Your task to perform on an android device: Go to calendar. Show me events next week Image 0: 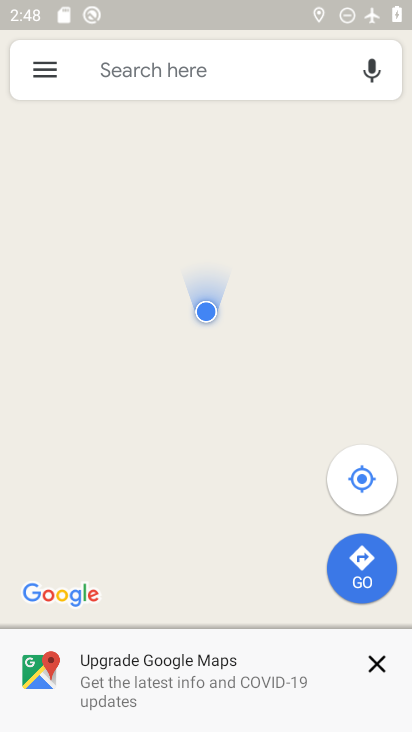
Step 0: press home button
Your task to perform on an android device: Go to calendar. Show me events next week Image 1: 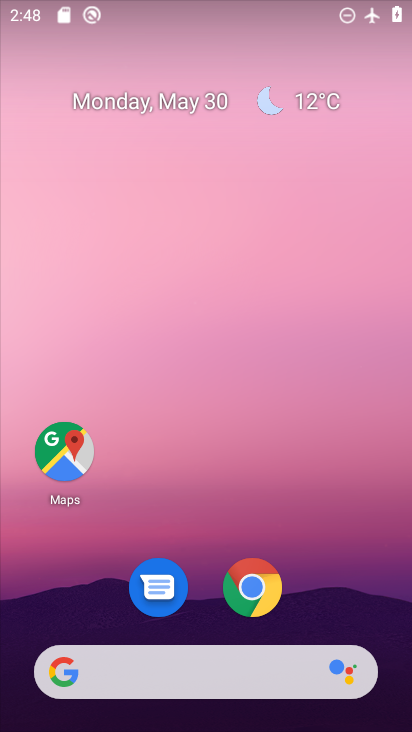
Step 1: drag from (204, 587) to (242, 86)
Your task to perform on an android device: Go to calendar. Show me events next week Image 2: 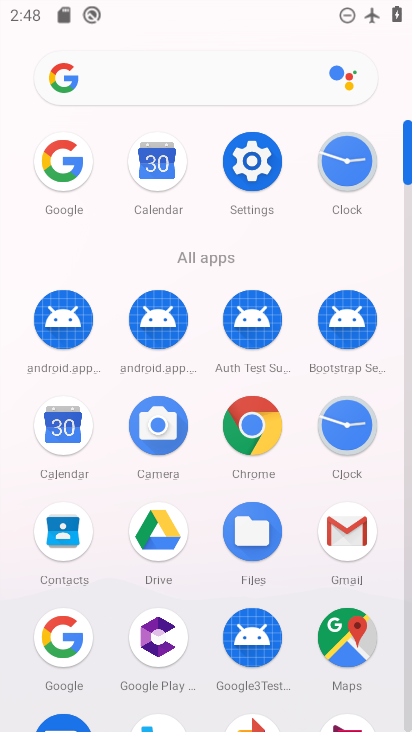
Step 2: click (66, 426)
Your task to perform on an android device: Go to calendar. Show me events next week Image 3: 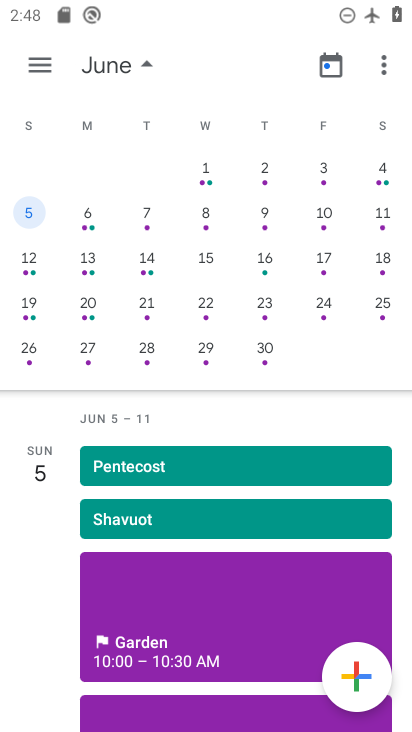
Step 3: click (209, 175)
Your task to perform on an android device: Go to calendar. Show me events next week Image 4: 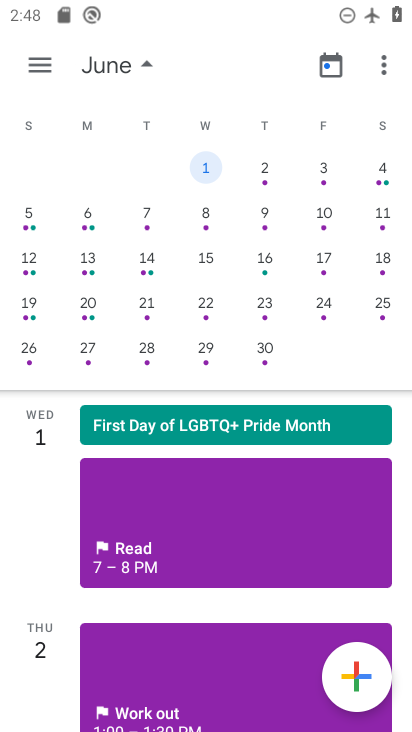
Step 4: click (259, 173)
Your task to perform on an android device: Go to calendar. Show me events next week Image 5: 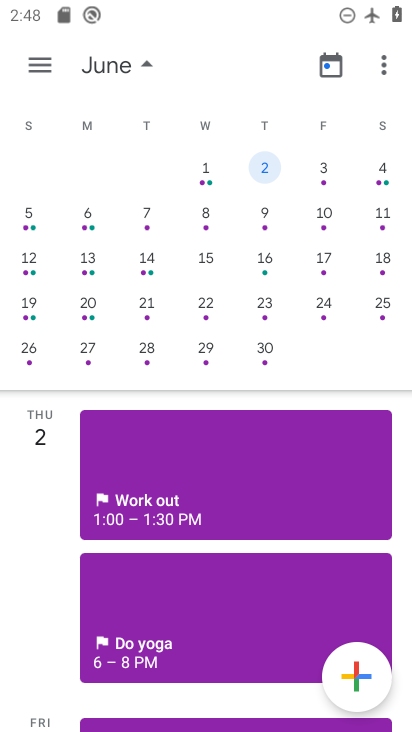
Step 5: click (329, 178)
Your task to perform on an android device: Go to calendar. Show me events next week Image 6: 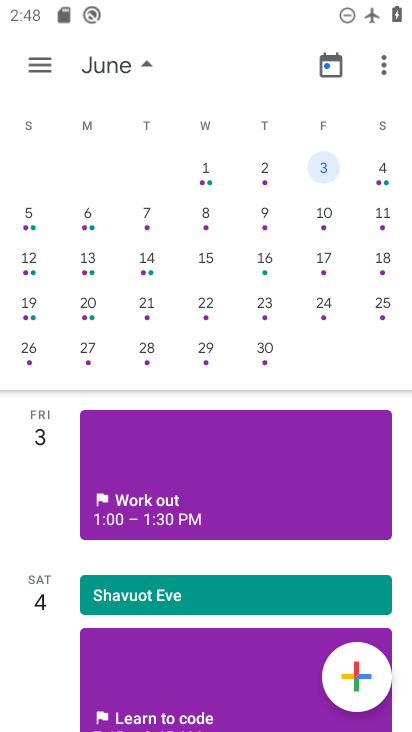
Step 6: click (377, 178)
Your task to perform on an android device: Go to calendar. Show me events next week Image 7: 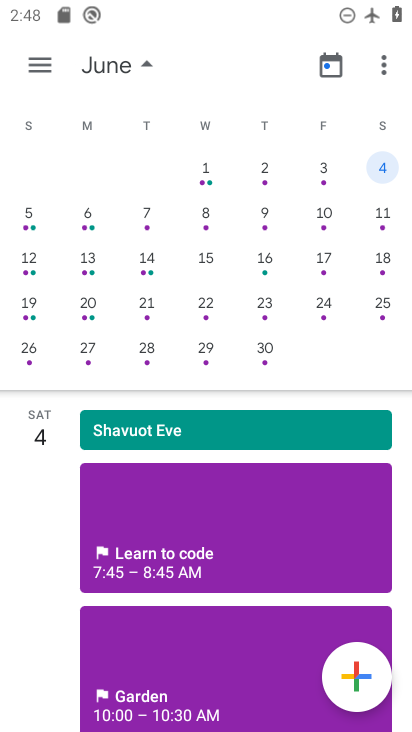
Step 7: task complete